Your task to perform on an android device: Open Chrome and go to settings Image 0: 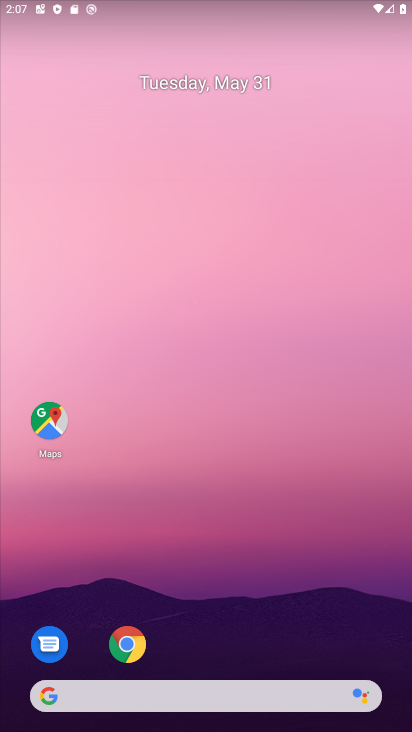
Step 0: click (126, 647)
Your task to perform on an android device: Open Chrome and go to settings Image 1: 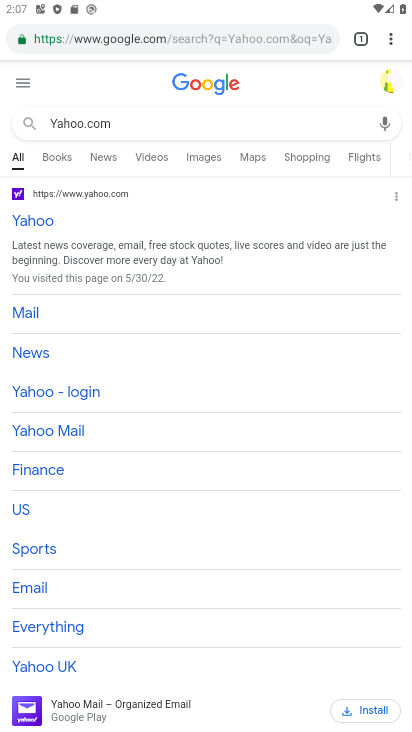
Step 1: click (391, 37)
Your task to perform on an android device: Open Chrome and go to settings Image 2: 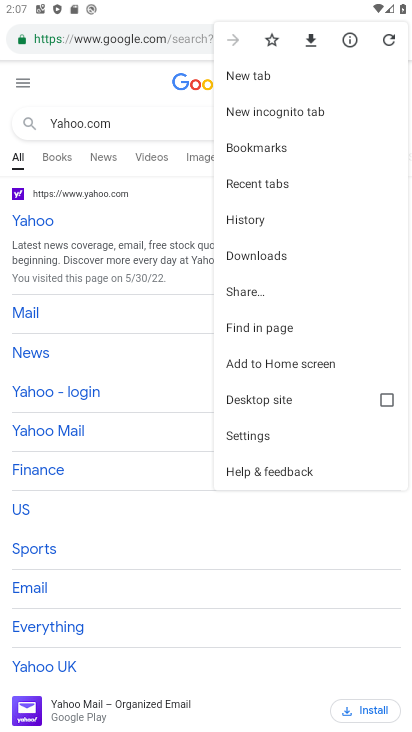
Step 2: click (231, 431)
Your task to perform on an android device: Open Chrome and go to settings Image 3: 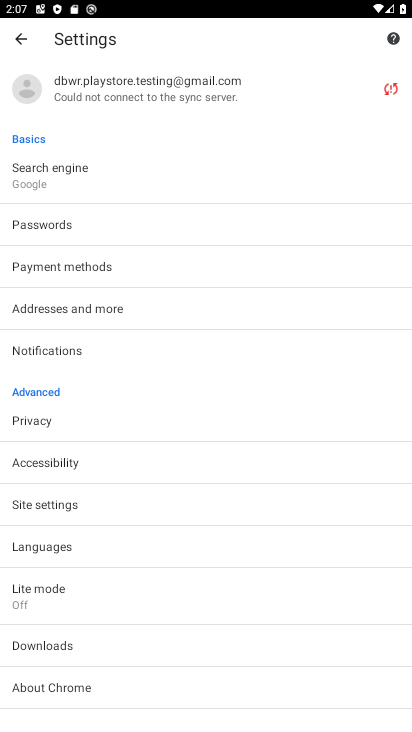
Step 3: task complete